Your task to perform on an android device: Search for sushi restaurants on Maps Image 0: 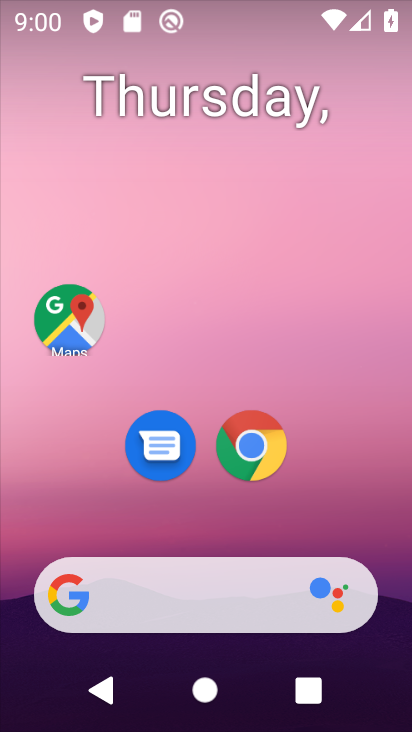
Step 0: click (65, 318)
Your task to perform on an android device: Search for sushi restaurants on Maps Image 1: 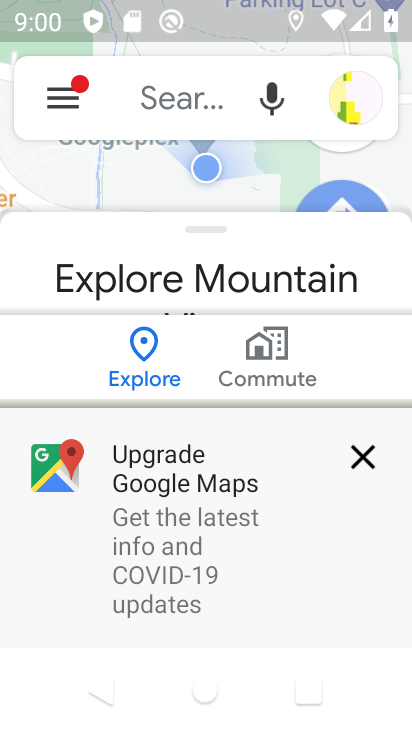
Step 1: click (131, 87)
Your task to perform on an android device: Search for sushi restaurants on Maps Image 2: 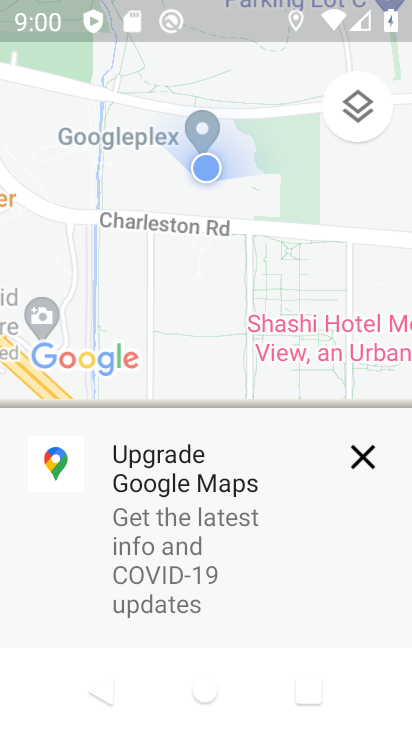
Step 2: click (148, 81)
Your task to perform on an android device: Search for sushi restaurants on Maps Image 3: 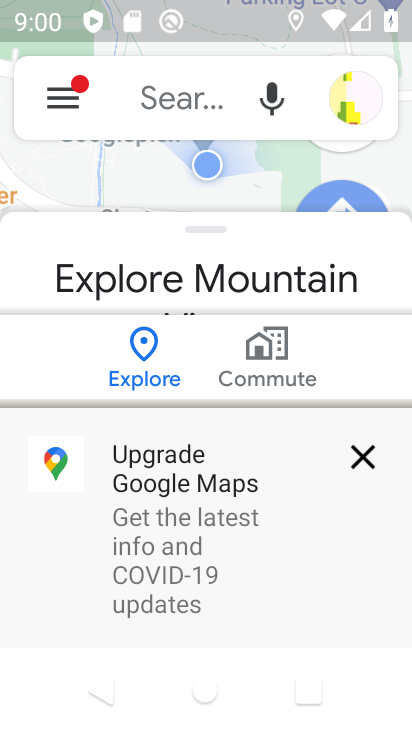
Step 3: click (152, 99)
Your task to perform on an android device: Search for sushi restaurants on Maps Image 4: 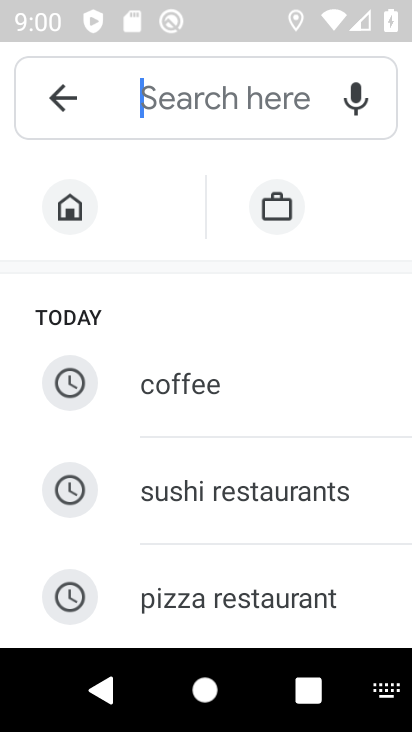
Step 4: type "sushi restaurant"
Your task to perform on an android device: Search for sushi restaurants on Maps Image 5: 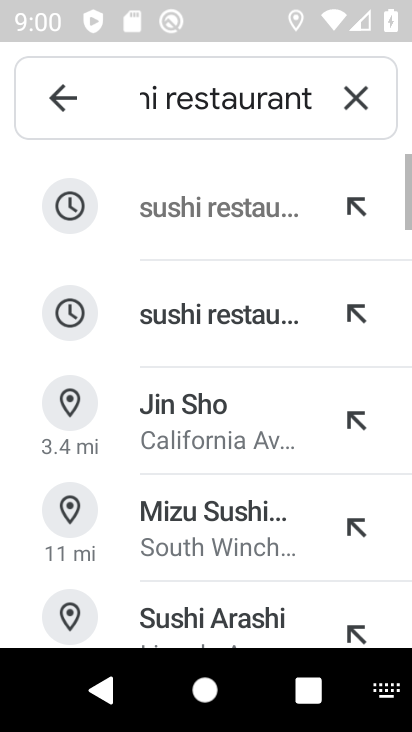
Step 5: click (211, 220)
Your task to perform on an android device: Search for sushi restaurants on Maps Image 6: 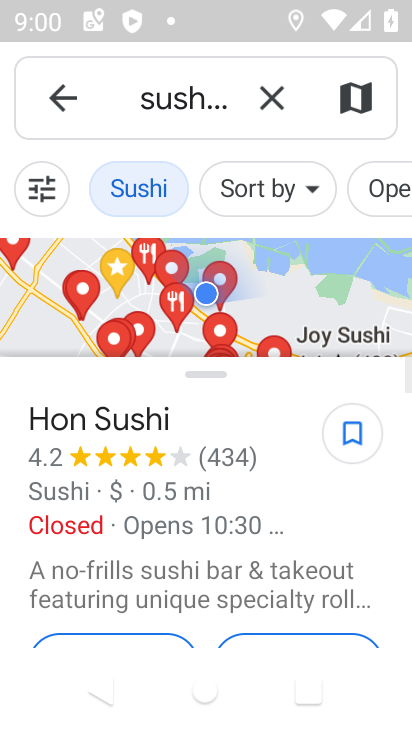
Step 6: task complete